Your task to perform on an android device: refresh tabs in the chrome app Image 0: 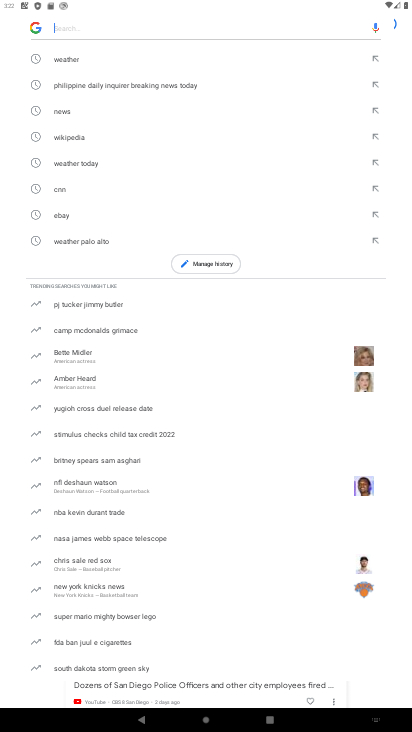
Step 0: press home button
Your task to perform on an android device: refresh tabs in the chrome app Image 1: 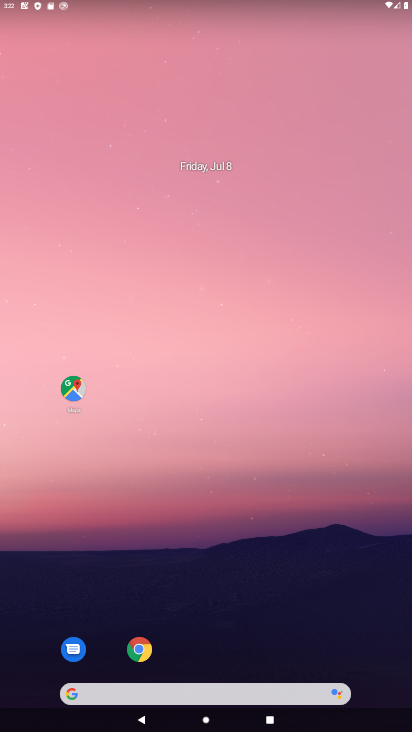
Step 1: click (146, 654)
Your task to perform on an android device: refresh tabs in the chrome app Image 2: 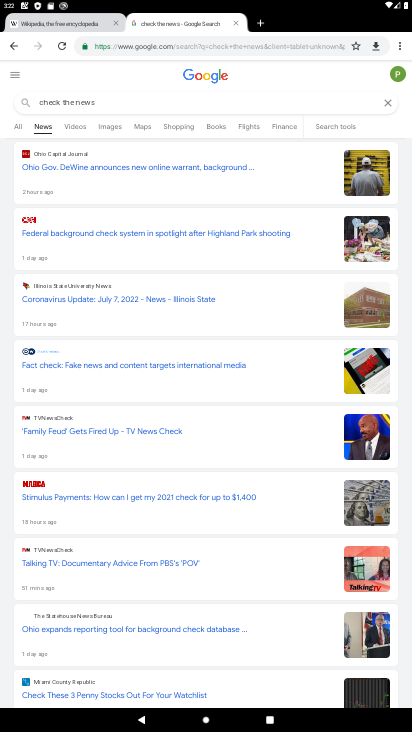
Step 2: click (398, 45)
Your task to perform on an android device: refresh tabs in the chrome app Image 3: 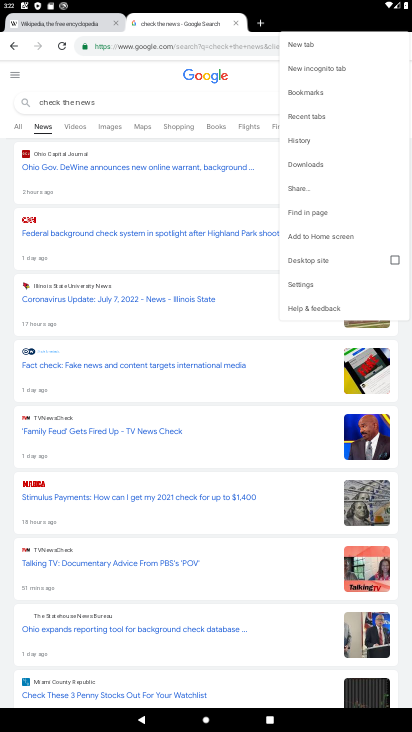
Step 3: click (60, 46)
Your task to perform on an android device: refresh tabs in the chrome app Image 4: 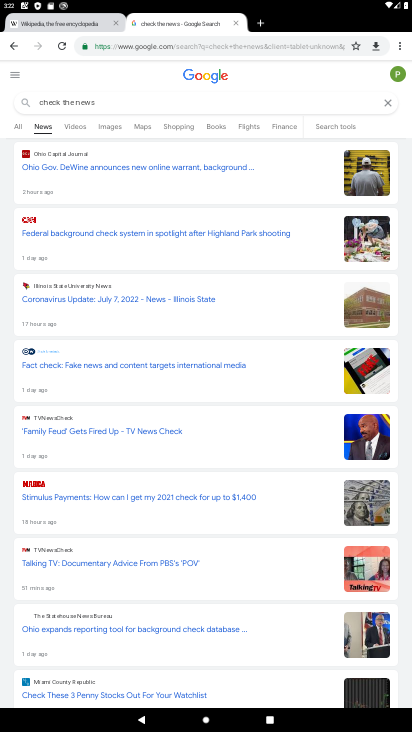
Step 4: click (60, 46)
Your task to perform on an android device: refresh tabs in the chrome app Image 5: 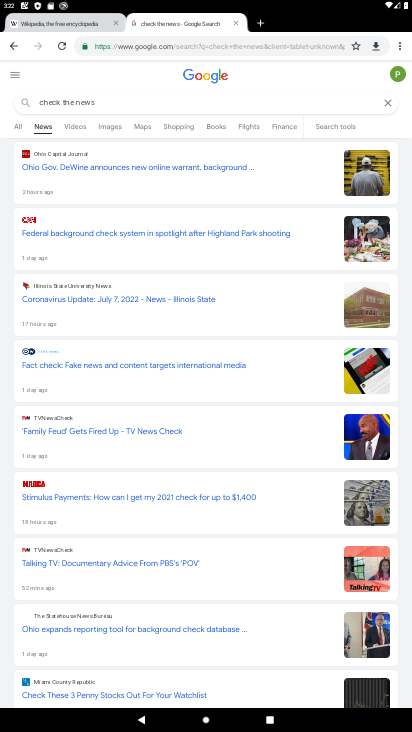
Step 5: click (62, 25)
Your task to perform on an android device: refresh tabs in the chrome app Image 6: 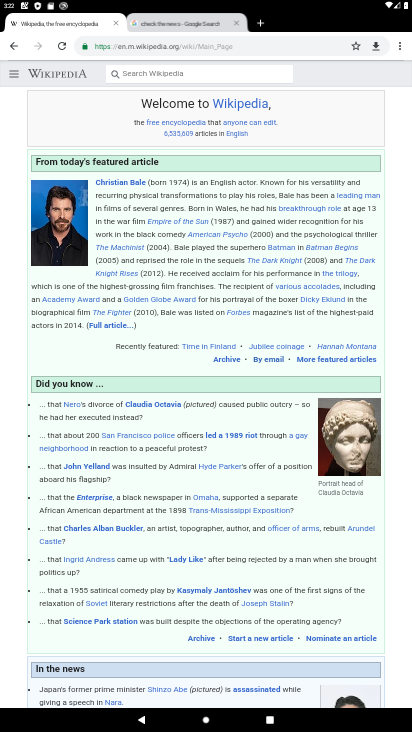
Step 6: click (61, 25)
Your task to perform on an android device: refresh tabs in the chrome app Image 7: 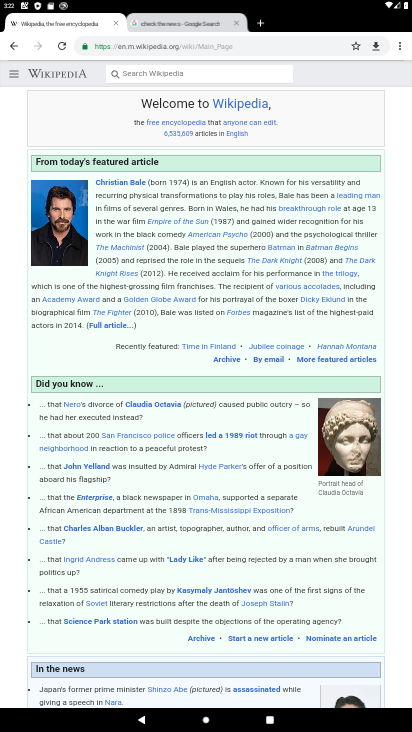
Step 7: click (62, 41)
Your task to perform on an android device: refresh tabs in the chrome app Image 8: 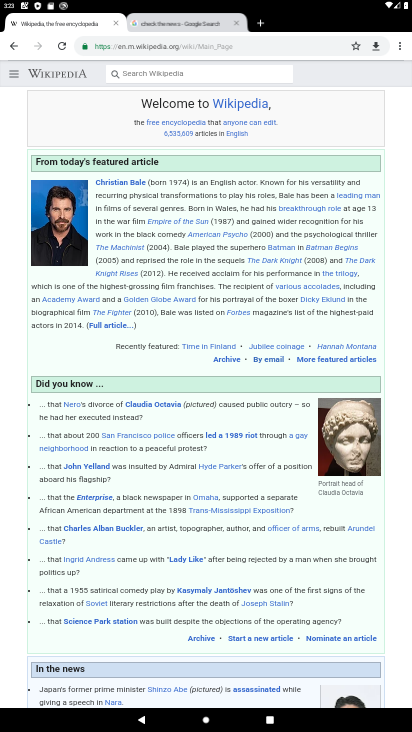
Step 8: task complete